Your task to perform on an android device: turn on location history Image 0: 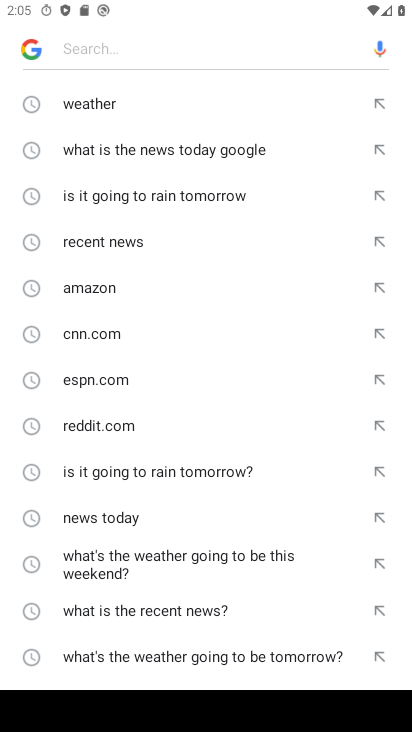
Step 0: press home button
Your task to perform on an android device: turn on location history Image 1: 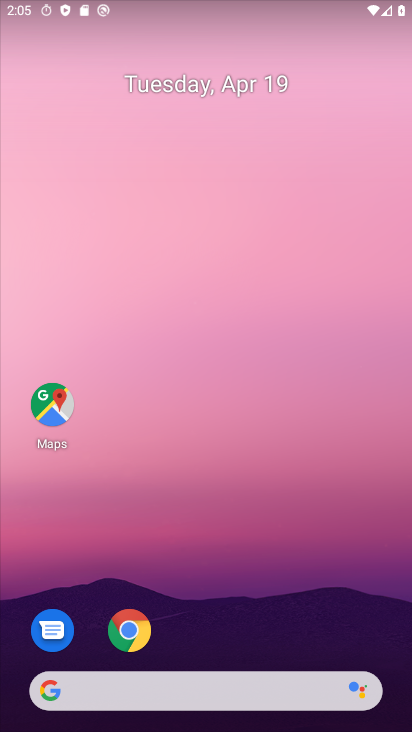
Step 1: drag from (234, 589) to (226, 142)
Your task to perform on an android device: turn on location history Image 2: 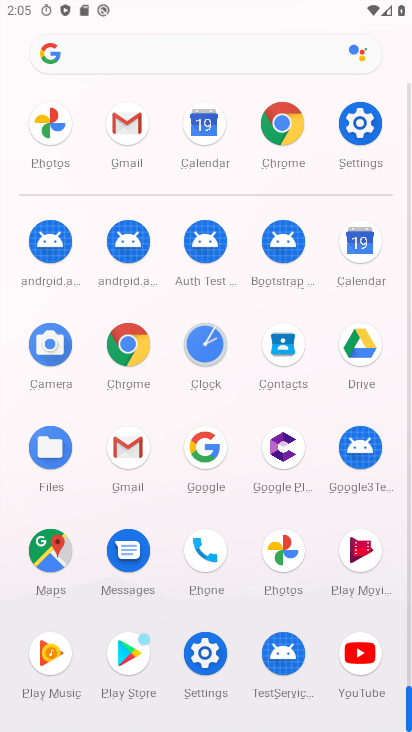
Step 2: click (362, 128)
Your task to perform on an android device: turn on location history Image 3: 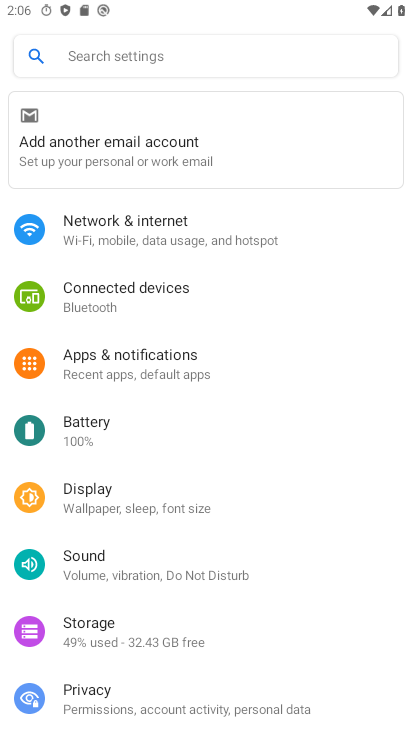
Step 3: drag from (287, 634) to (296, 305)
Your task to perform on an android device: turn on location history Image 4: 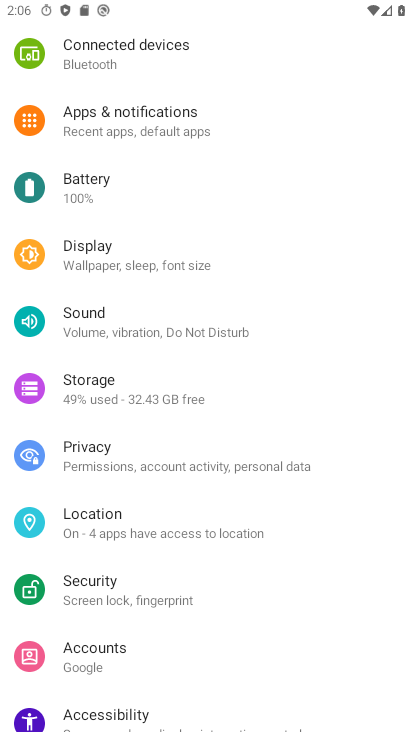
Step 4: click (159, 528)
Your task to perform on an android device: turn on location history Image 5: 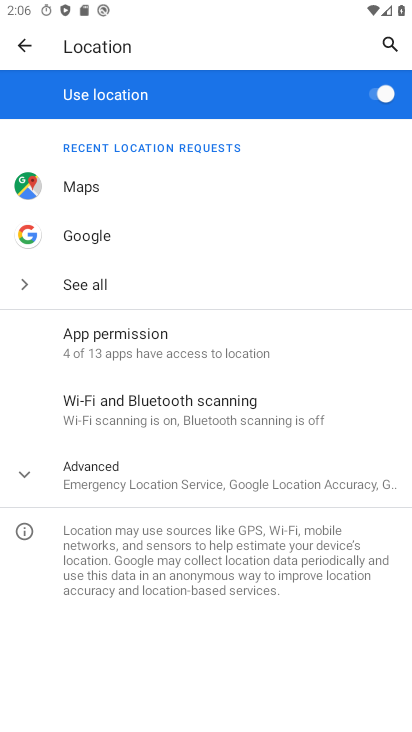
Step 5: click (168, 476)
Your task to perform on an android device: turn on location history Image 6: 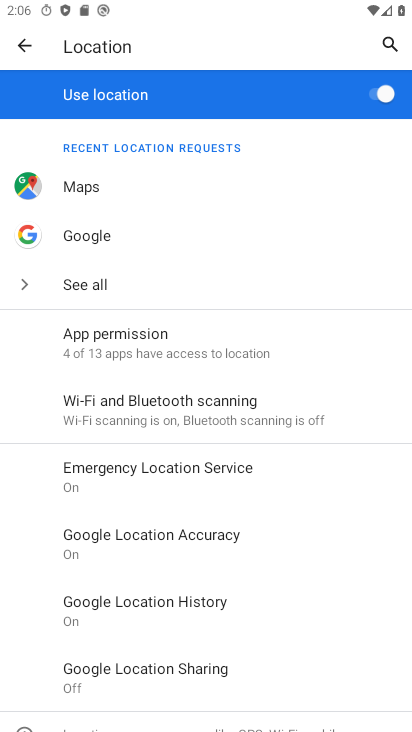
Step 6: task complete